Your task to perform on an android device: turn vacation reply on in the gmail app Image 0: 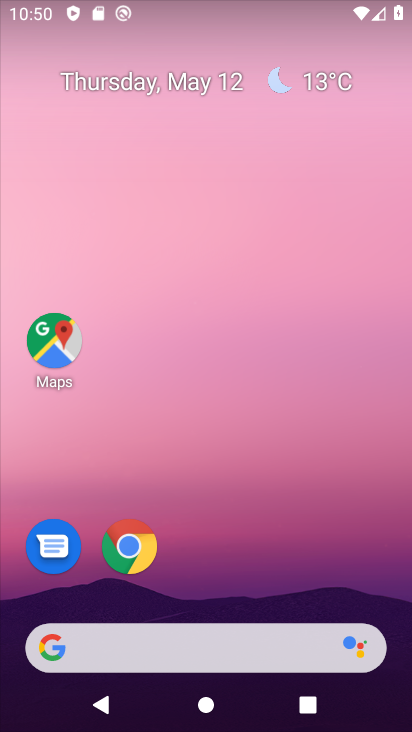
Step 0: drag from (260, 676) to (218, 248)
Your task to perform on an android device: turn vacation reply on in the gmail app Image 1: 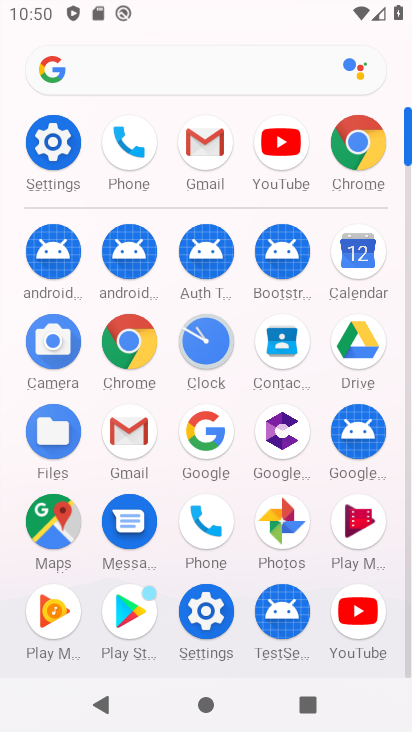
Step 1: click (116, 439)
Your task to perform on an android device: turn vacation reply on in the gmail app Image 2: 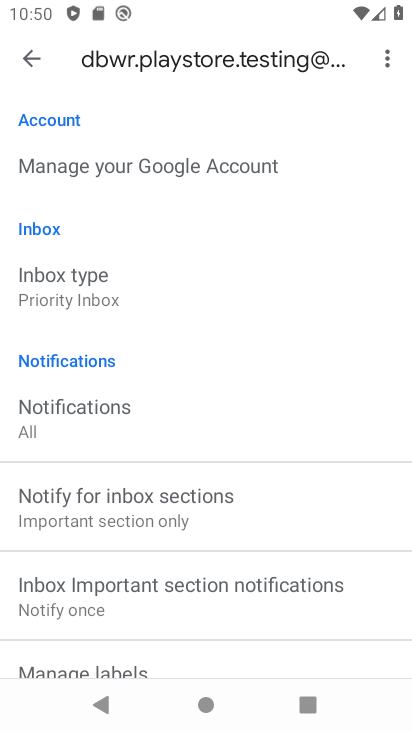
Step 2: drag from (175, 548) to (273, 137)
Your task to perform on an android device: turn vacation reply on in the gmail app Image 3: 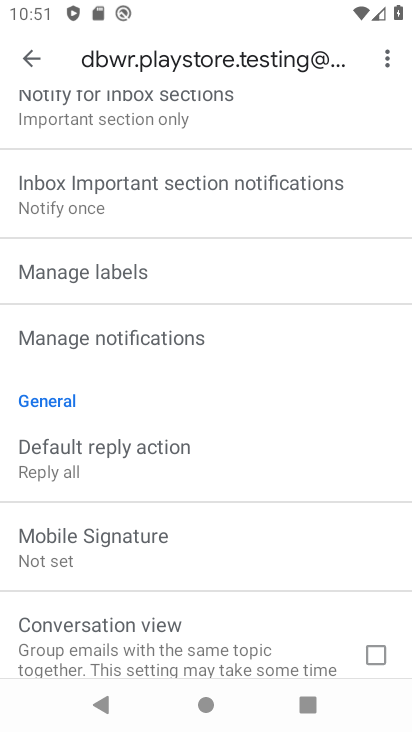
Step 3: drag from (165, 536) to (283, 126)
Your task to perform on an android device: turn vacation reply on in the gmail app Image 4: 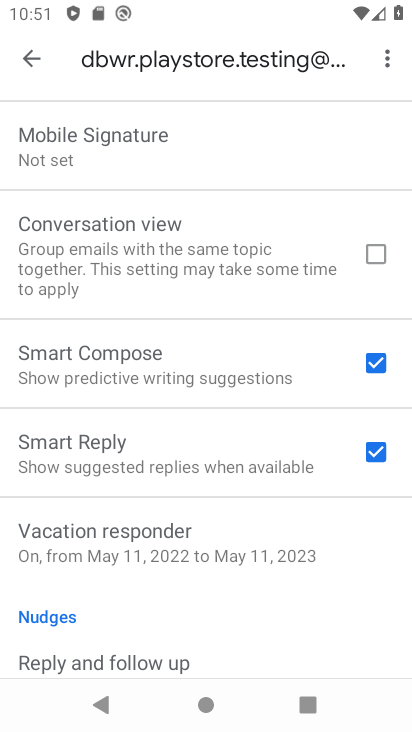
Step 4: drag from (181, 614) to (220, 487)
Your task to perform on an android device: turn vacation reply on in the gmail app Image 5: 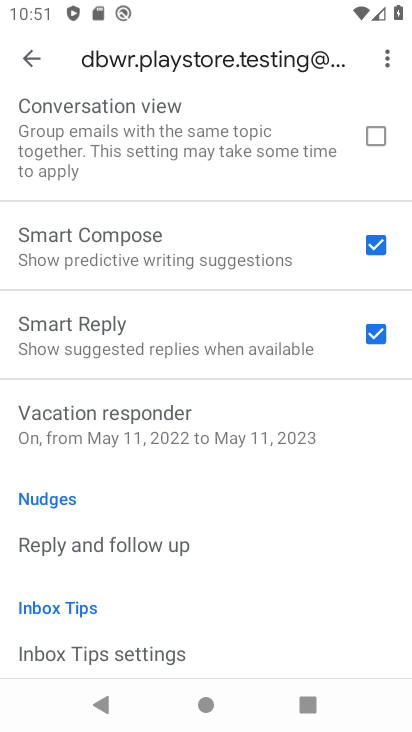
Step 5: click (124, 420)
Your task to perform on an android device: turn vacation reply on in the gmail app Image 6: 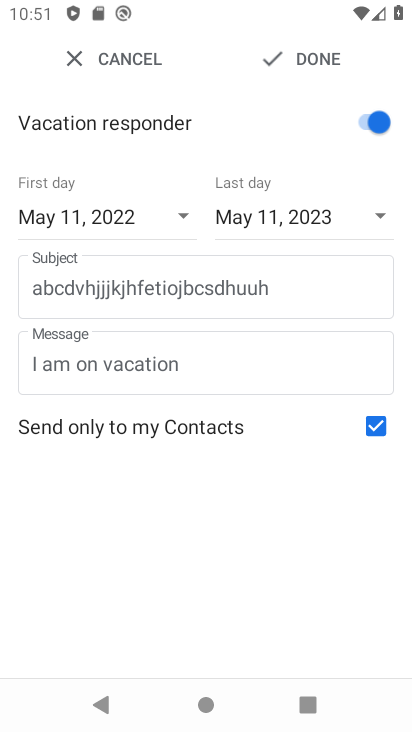
Step 6: task complete